Your task to perform on an android device: Go to calendar. Show me events next week Image 0: 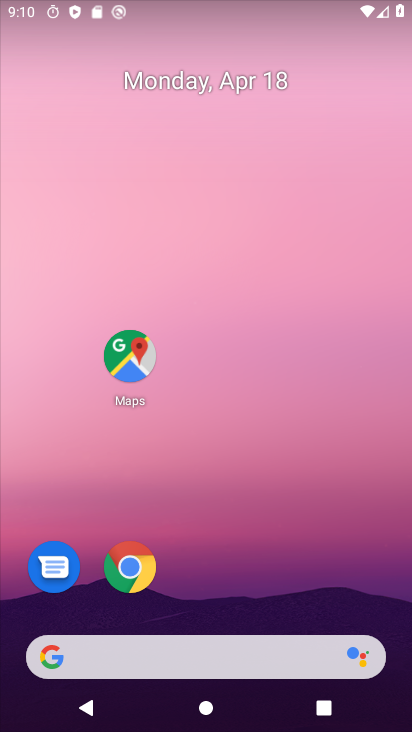
Step 0: click (250, 353)
Your task to perform on an android device: Go to calendar. Show me events next week Image 1: 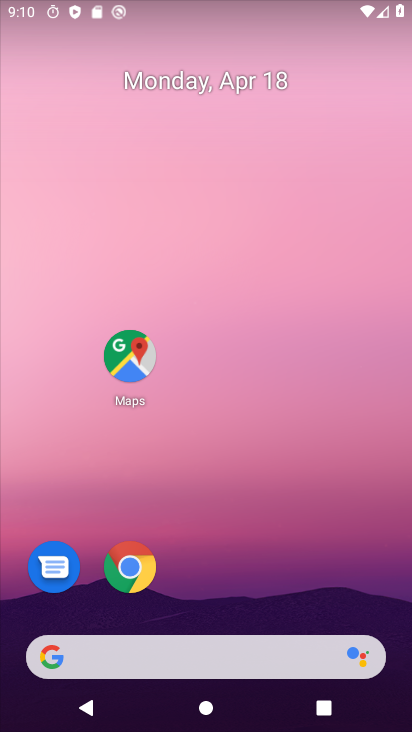
Step 1: drag from (244, 690) to (271, 409)
Your task to perform on an android device: Go to calendar. Show me events next week Image 2: 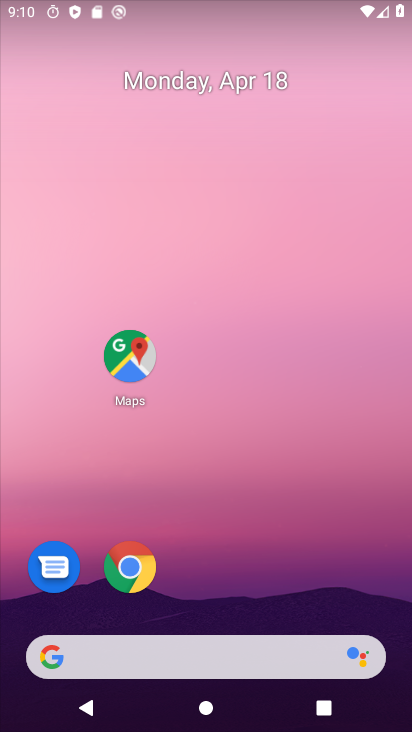
Step 2: drag from (263, 672) to (407, 206)
Your task to perform on an android device: Go to calendar. Show me events next week Image 3: 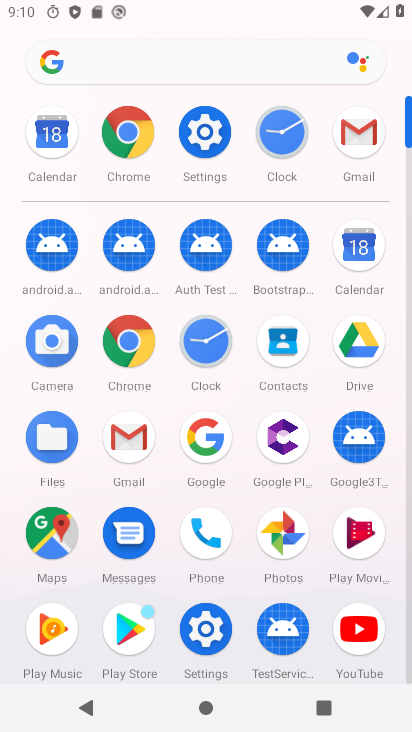
Step 3: click (358, 254)
Your task to perform on an android device: Go to calendar. Show me events next week Image 4: 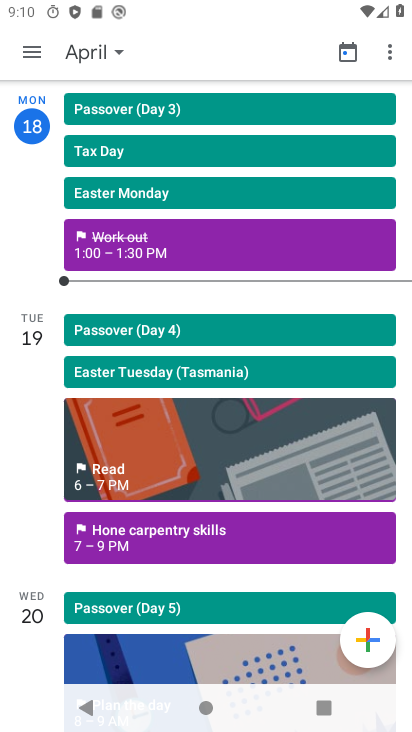
Step 4: click (86, 337)
Your task to perform on an android device: Go to calendar. Show me events next week Image 5: 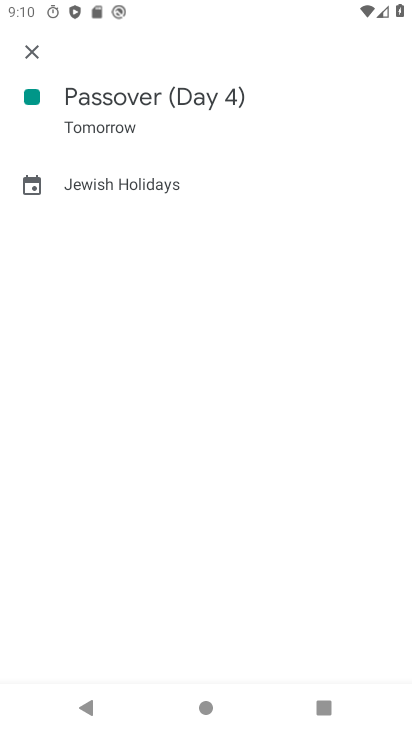
Step 5: task complete